Your task to perform on an android device: Add "razer nari" to the cart on bestbuy.com Image 0: 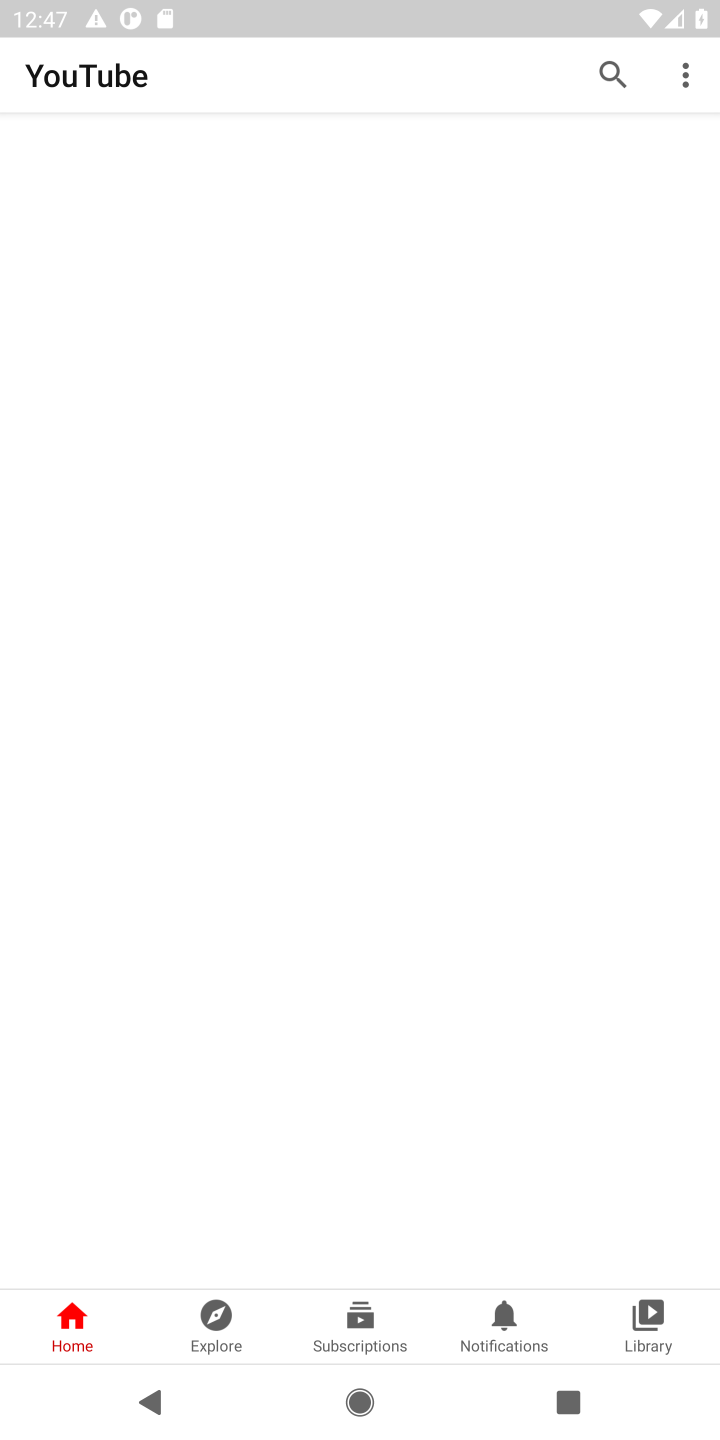
Step 0: click (477, 1141)
Your task to perform on an android device: Add "razer nari" to the cart on bestbuy.com Image 1: 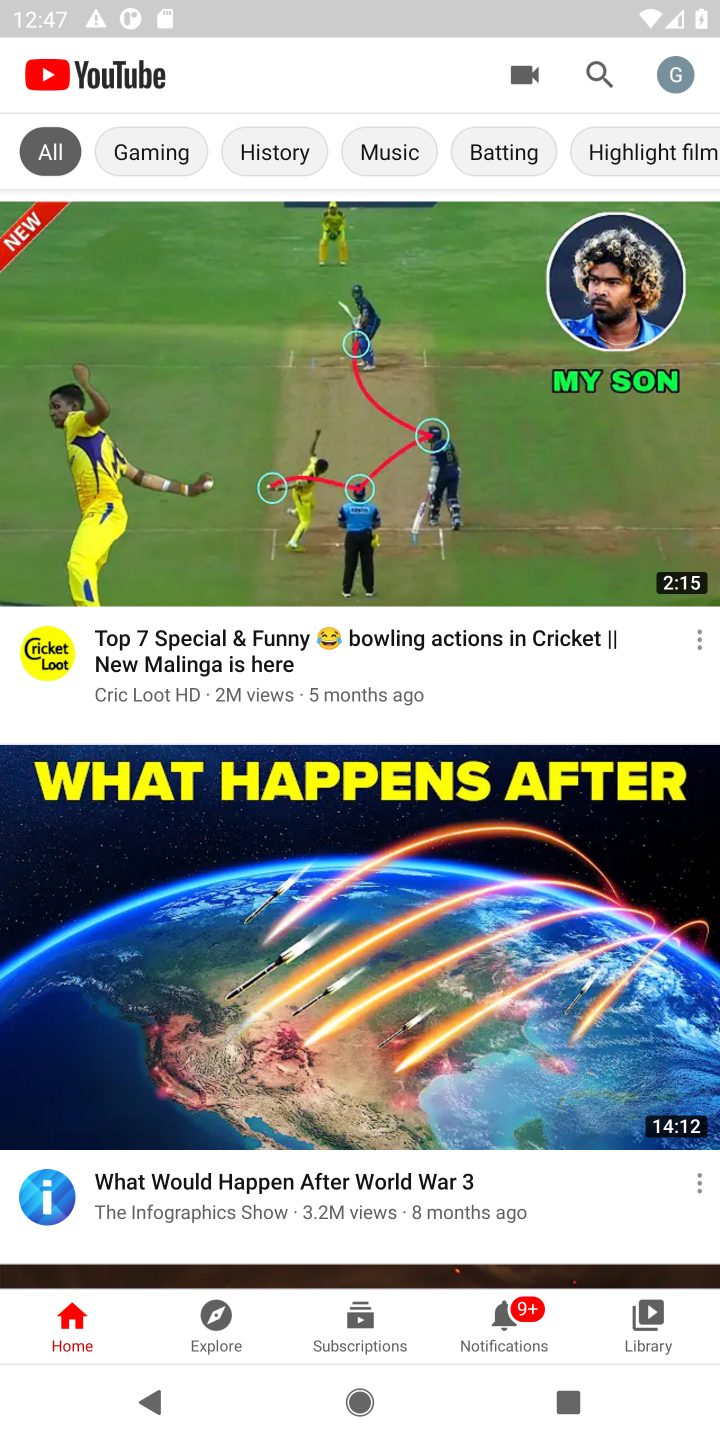
Step 1: press home button
Your task to perform on an android device: Add "razer nari" to the cart on bestbuy.com Image 2: 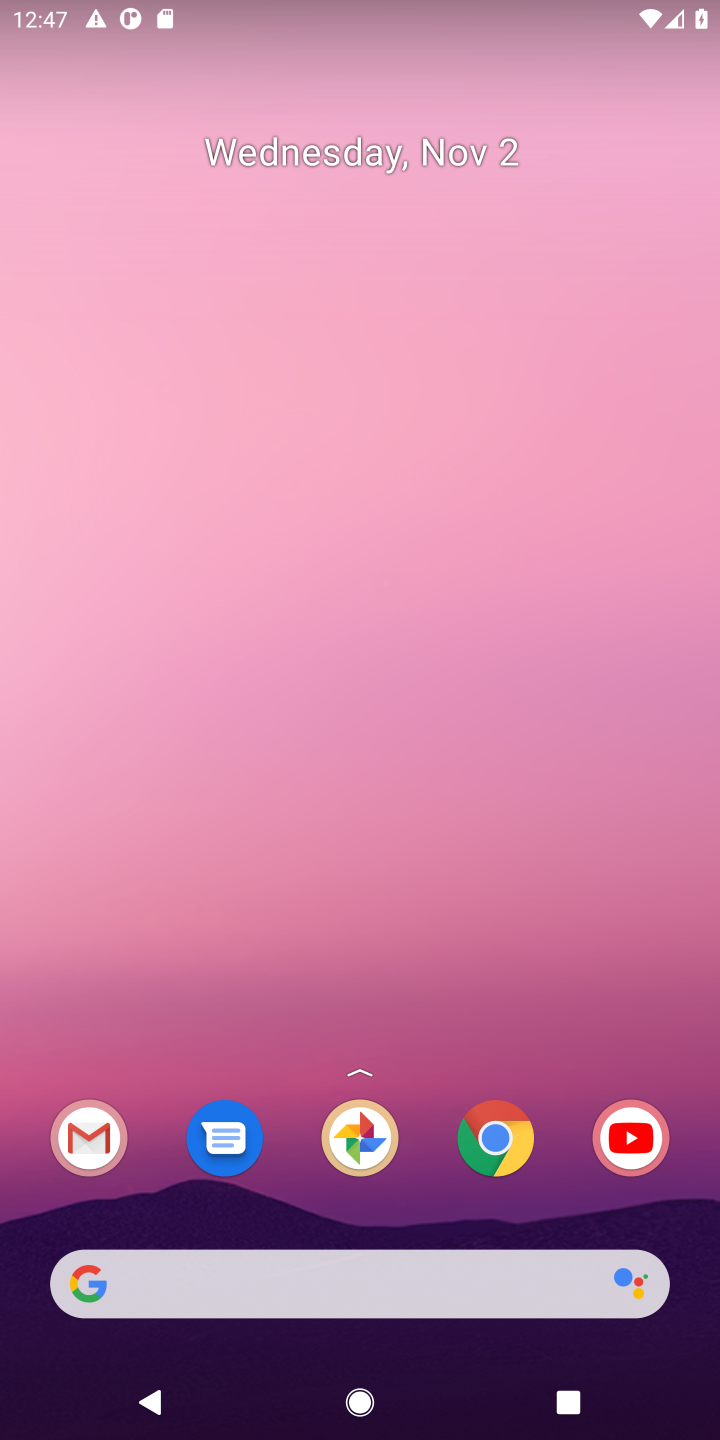
Step 2: click (486, 1131)
Your task to perform on an android device: Add "razer nari" to the cart on bestbuy.com Image 3: 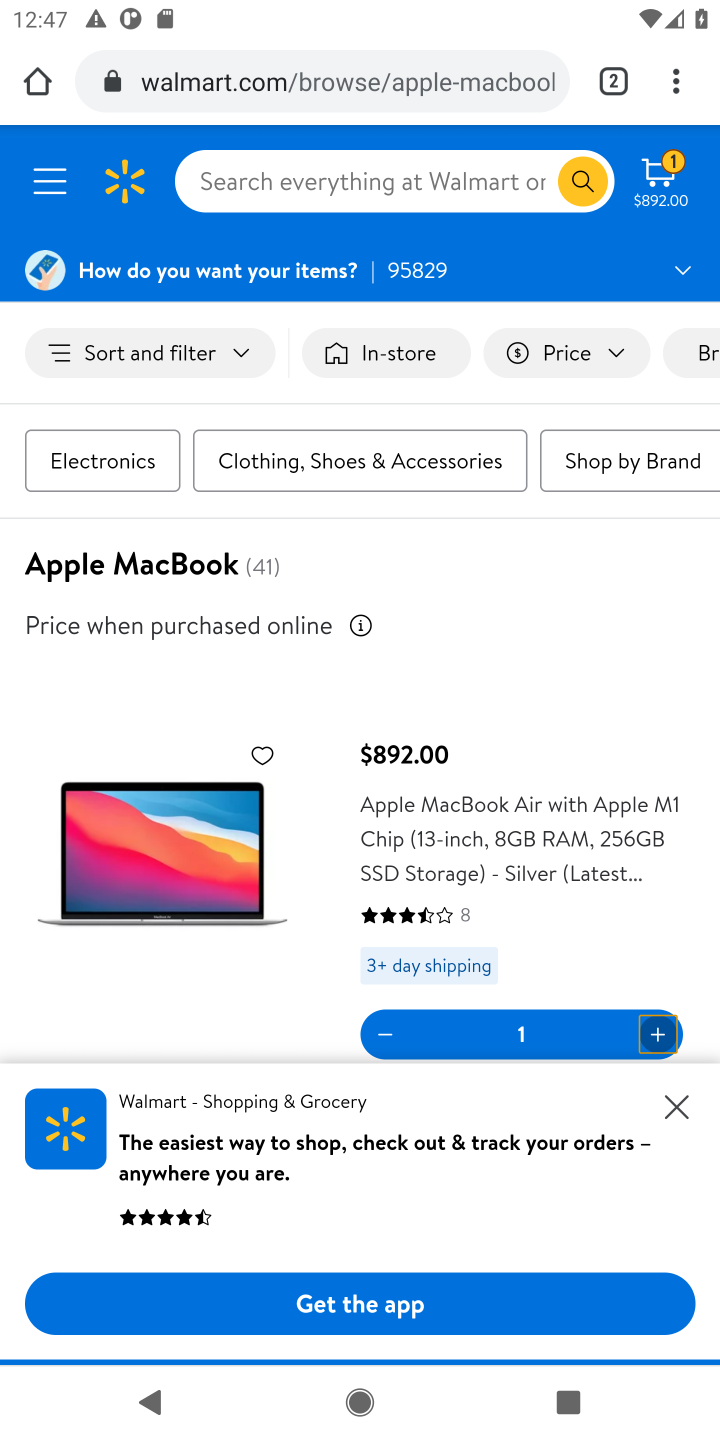
Step 3: click (610, 81)
Your task to perform on an android device: Add "razer nari" to the cart on bestbuy.com Image 4: 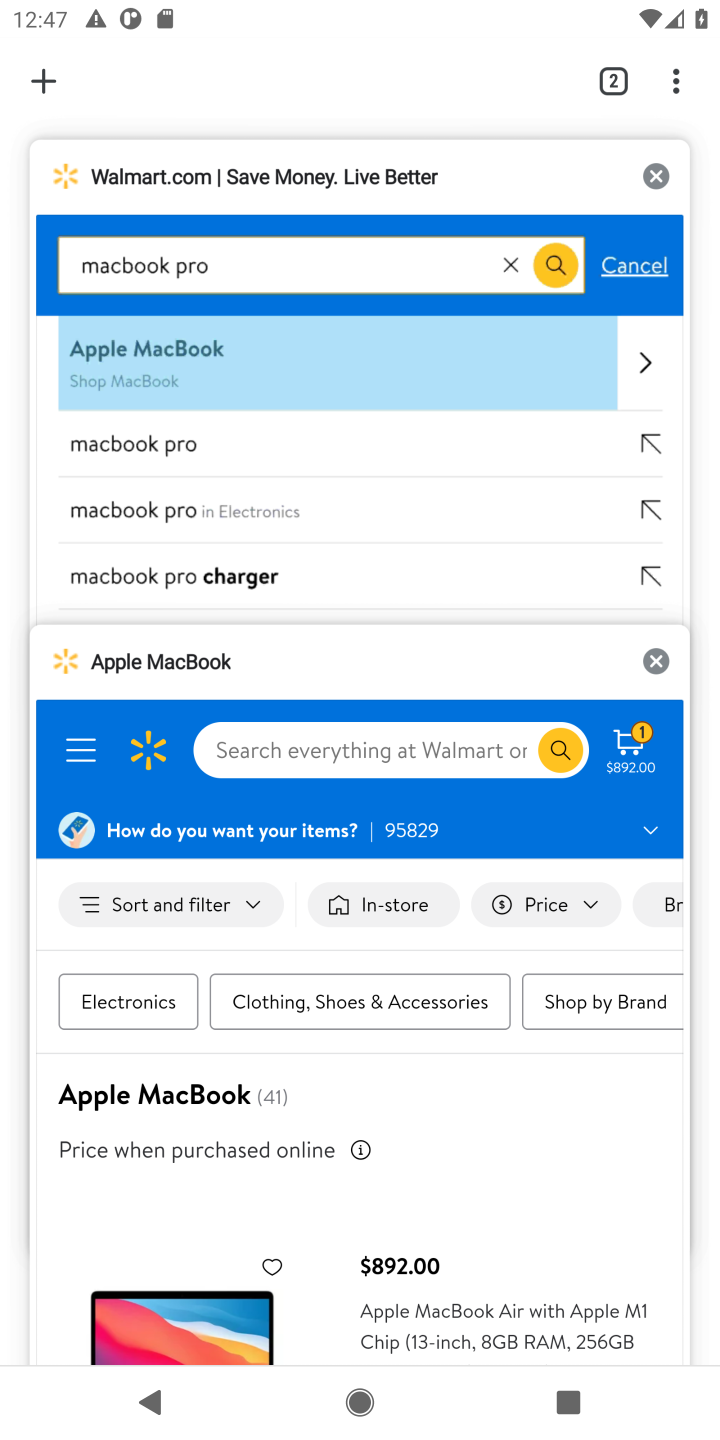
Step 4: click (659, 668)
Your task to perform on an android device: Add "razer nari" to the cart on bestbuy.com Image 5: 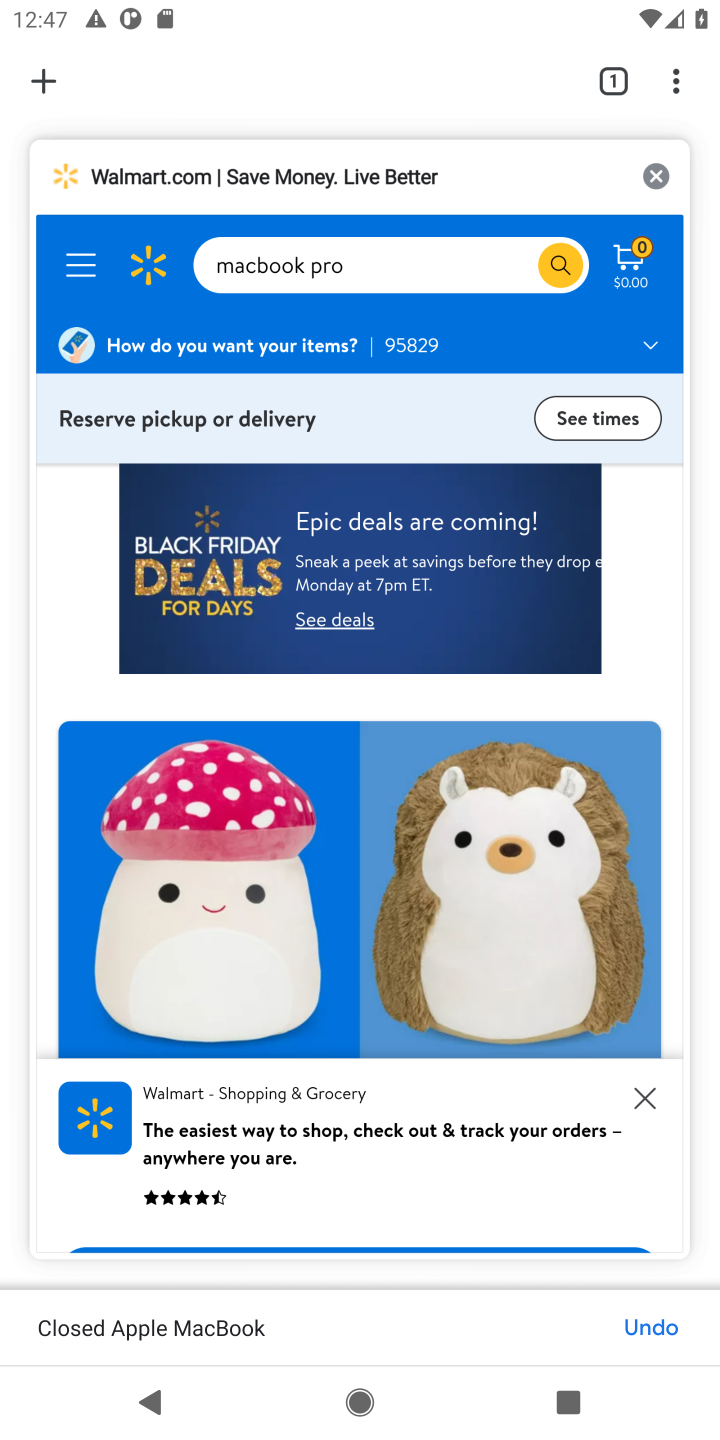
Step 5: click (40, 77)
Your task to perform on an android device: Add "razer nari" to the cart on bestbuy.com Image 6: 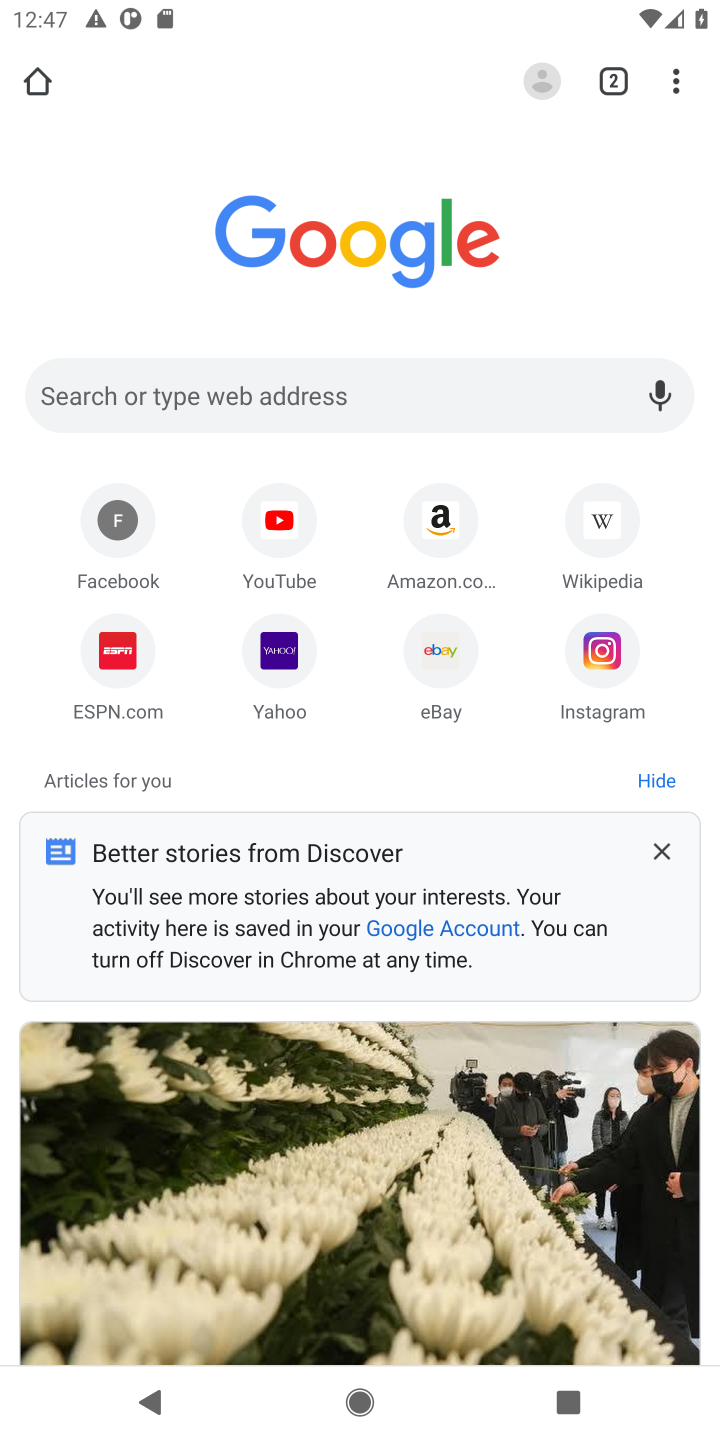
Step 6: click (322, 398)
Your task to perform on an android device: Add "razer nari" to the cart on bestbuy.com Image 7: 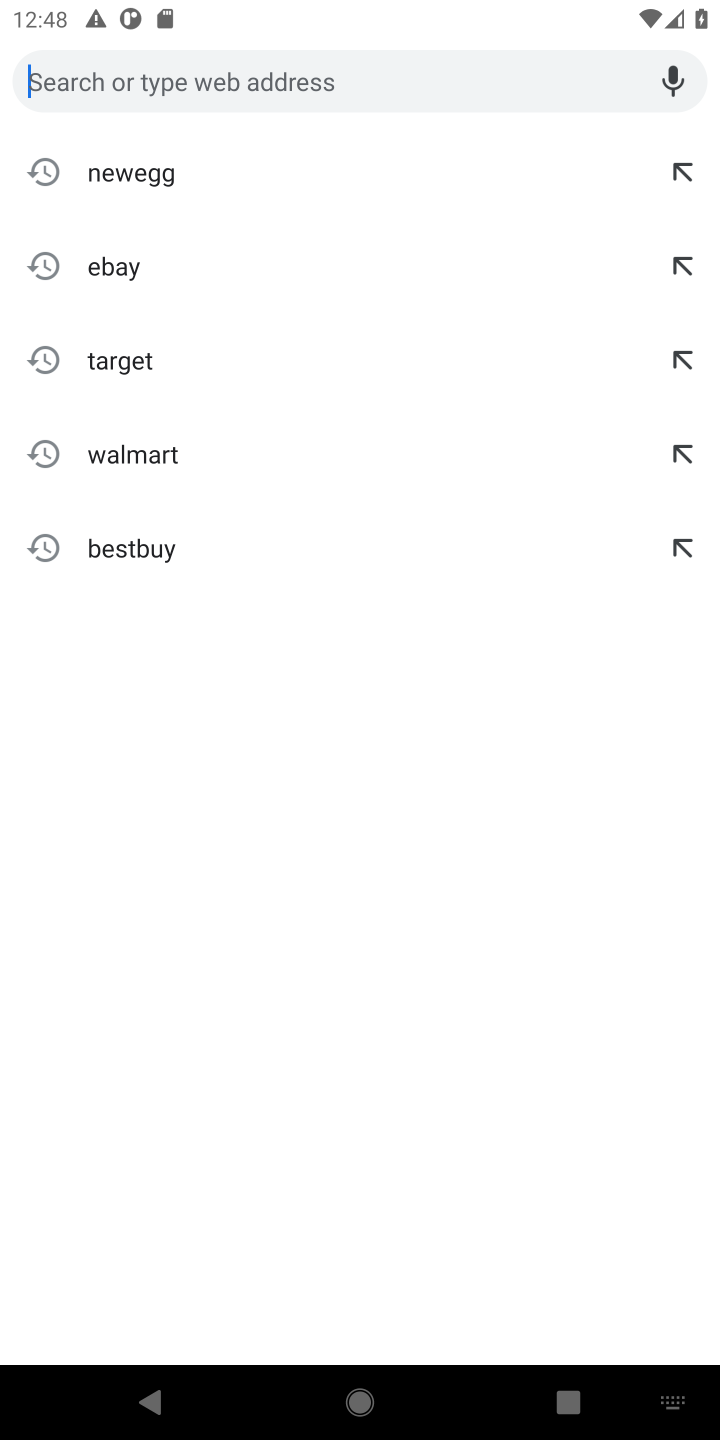
Step 7: type "bestbuy"
Your task to perform on an android device: Add "razer nari" to the cart on bestbuy.com Image 8: 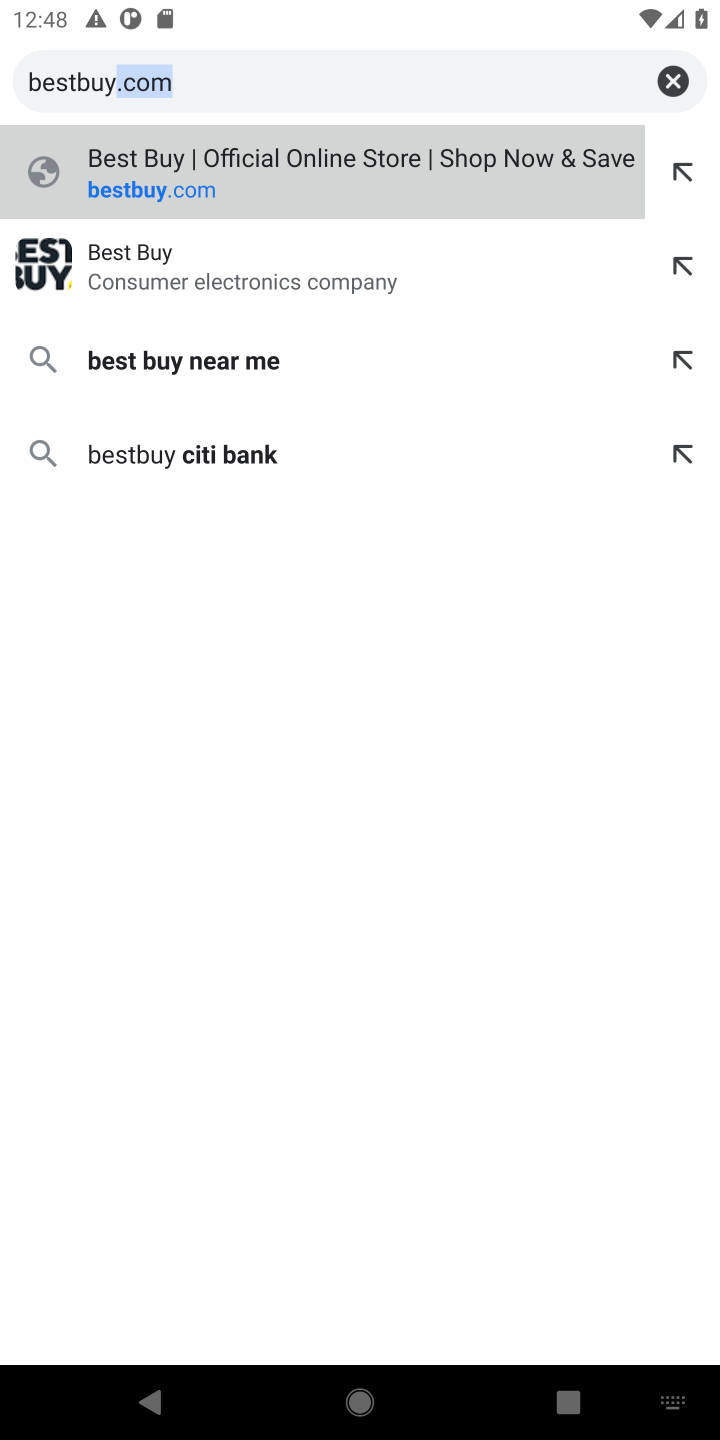
Step 8: click (404, 186)
Your task to perform on an android device: Add "razer nari" to the cart on bestbuy.com Image 9: 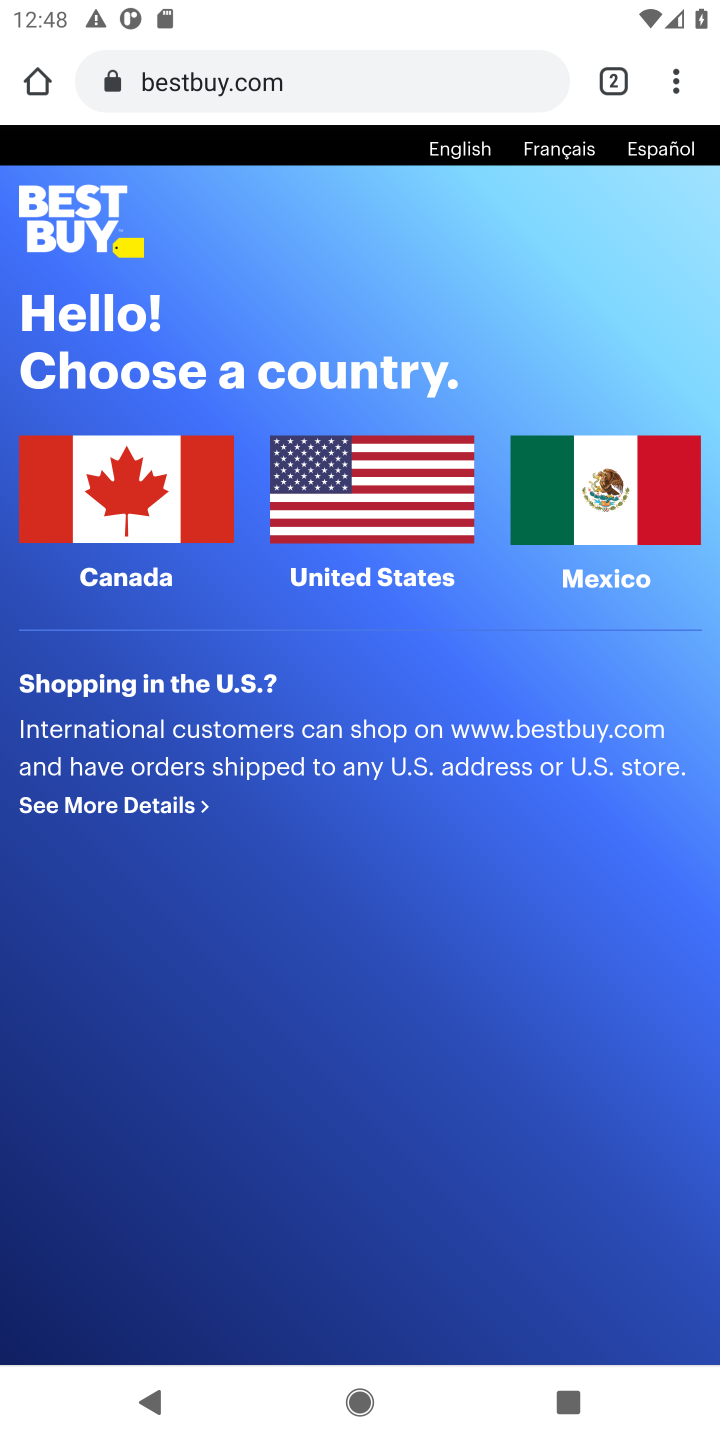
Step 9: click (393, 498)
Your task to perform on an android device: Add "razer nari" to the cart on bestbuy.com Image 10: 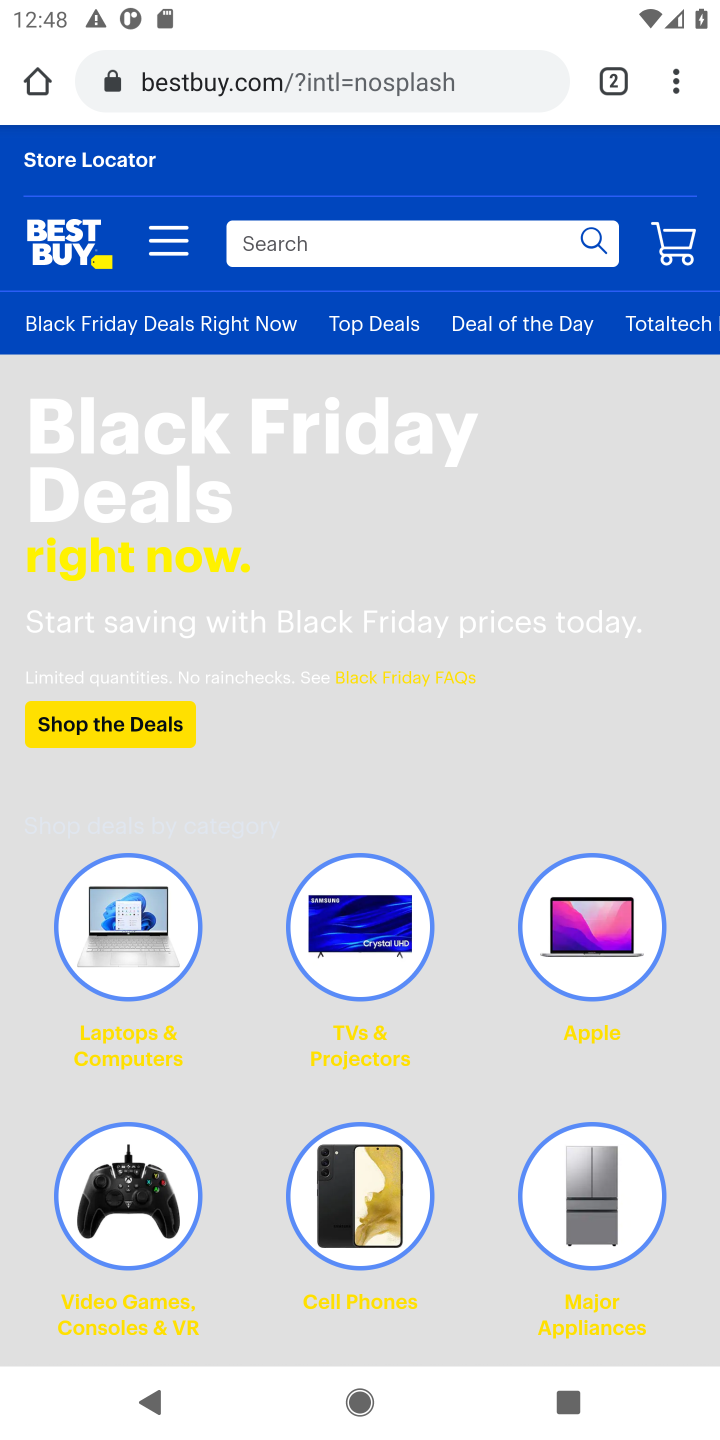
Step 10: click (440, 258)
Your task to perform on an android device: Add "razer nari" to the cart on bestbuy.com Image 11: 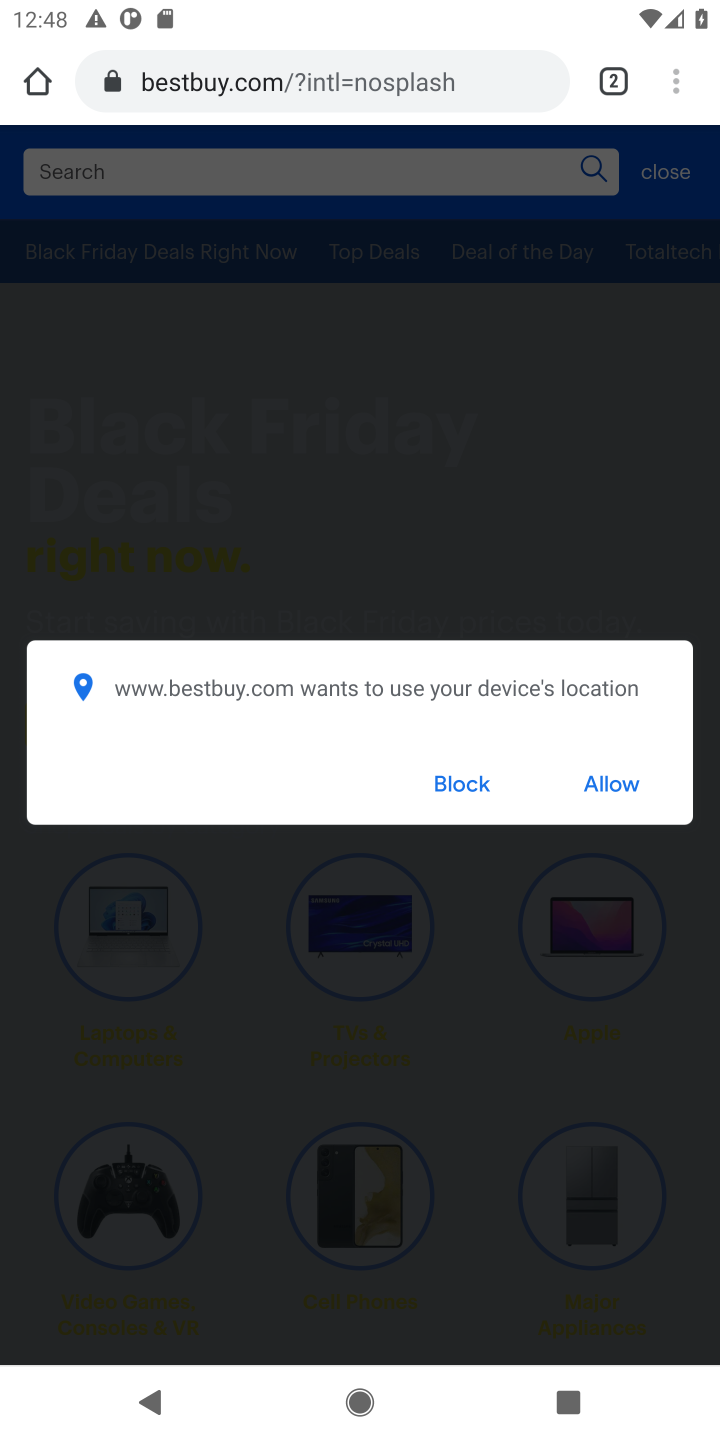
Step 11: type "razer nari"
Your task to perform on an android device: Add "razer nari" to the cart on bestbuy.com Image 12: 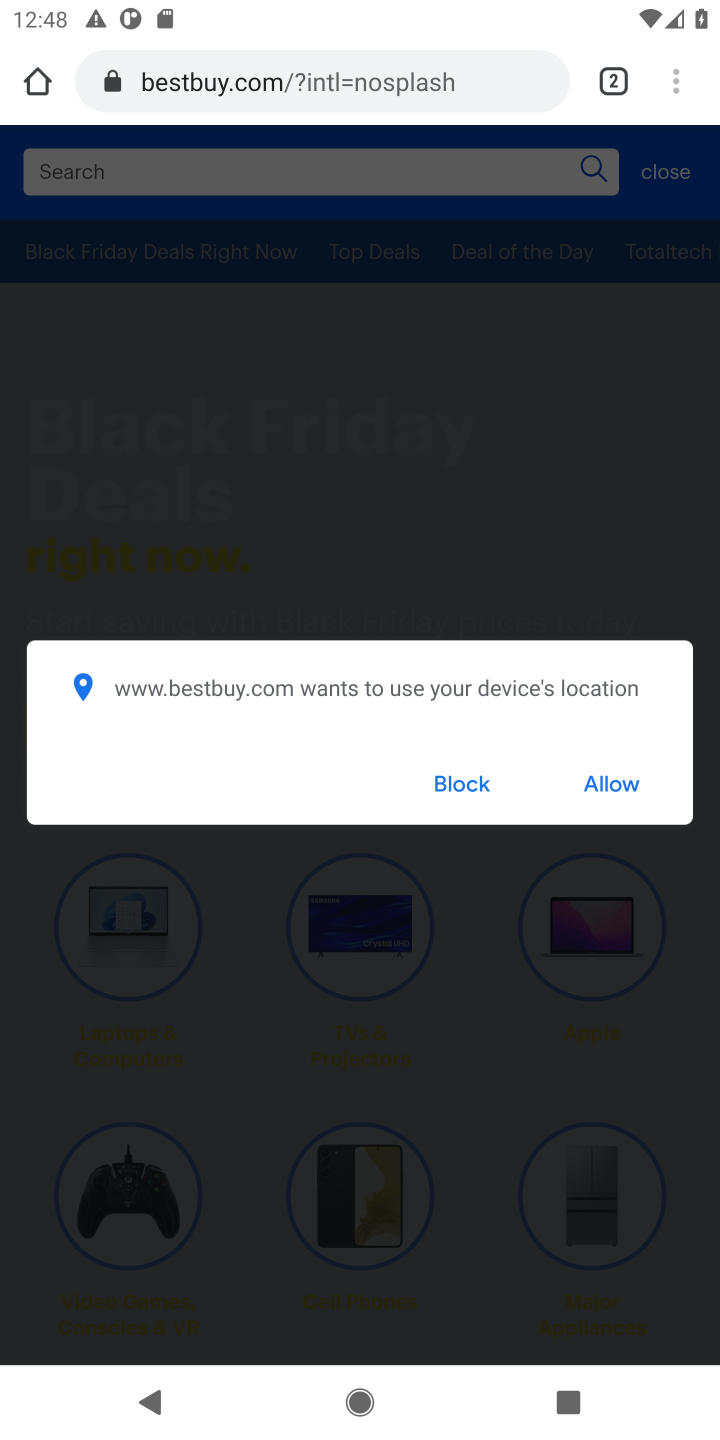
Step 12: click (459, 783)
Your task to perform on an android device: Add "razer nari" to the cart on bestbuy.com Image 13: 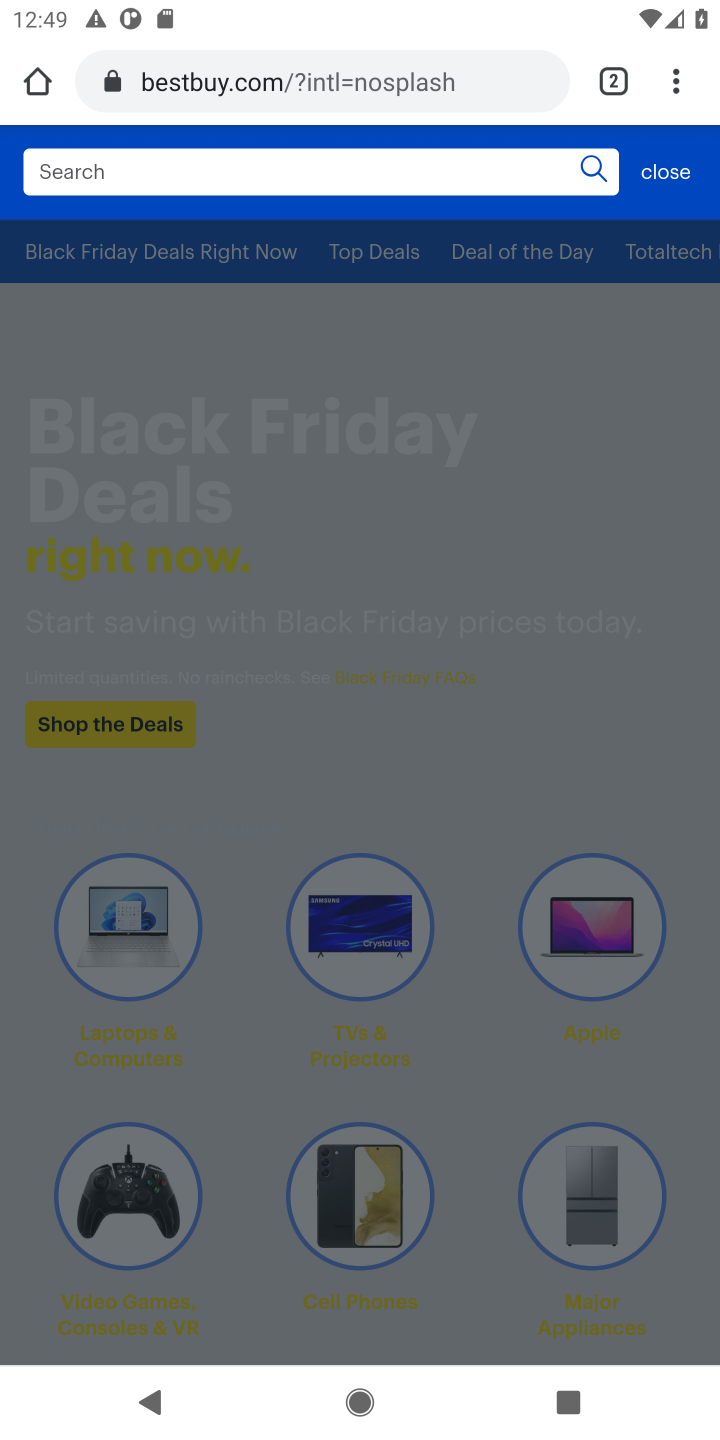
Step 13: click (295, 170)
Your task to perform on an android device: Add "razer nari" to the cart on bestbuy.com Image 14: 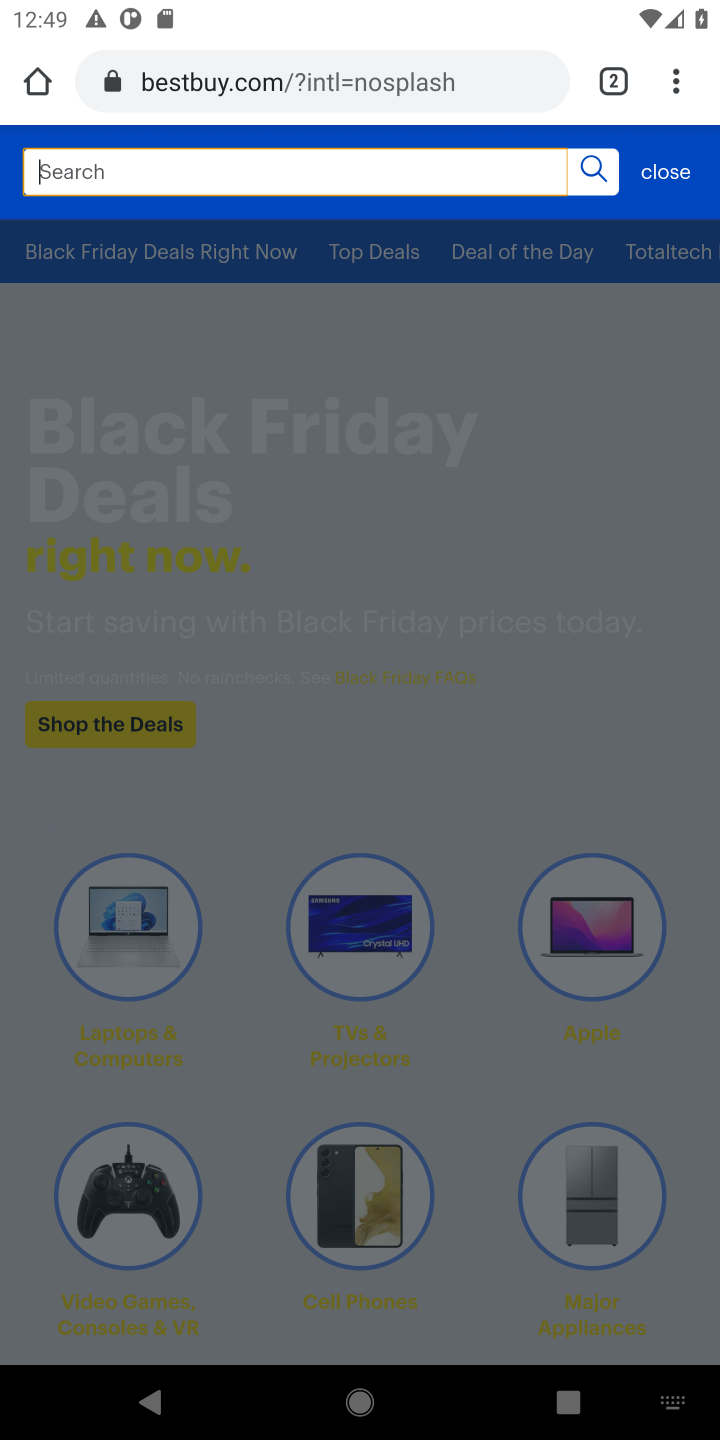
Step 14: type "razer nari"
Your task to perform on an android device: Add "razer nari" to the cart on bestbuy.com Image 15: 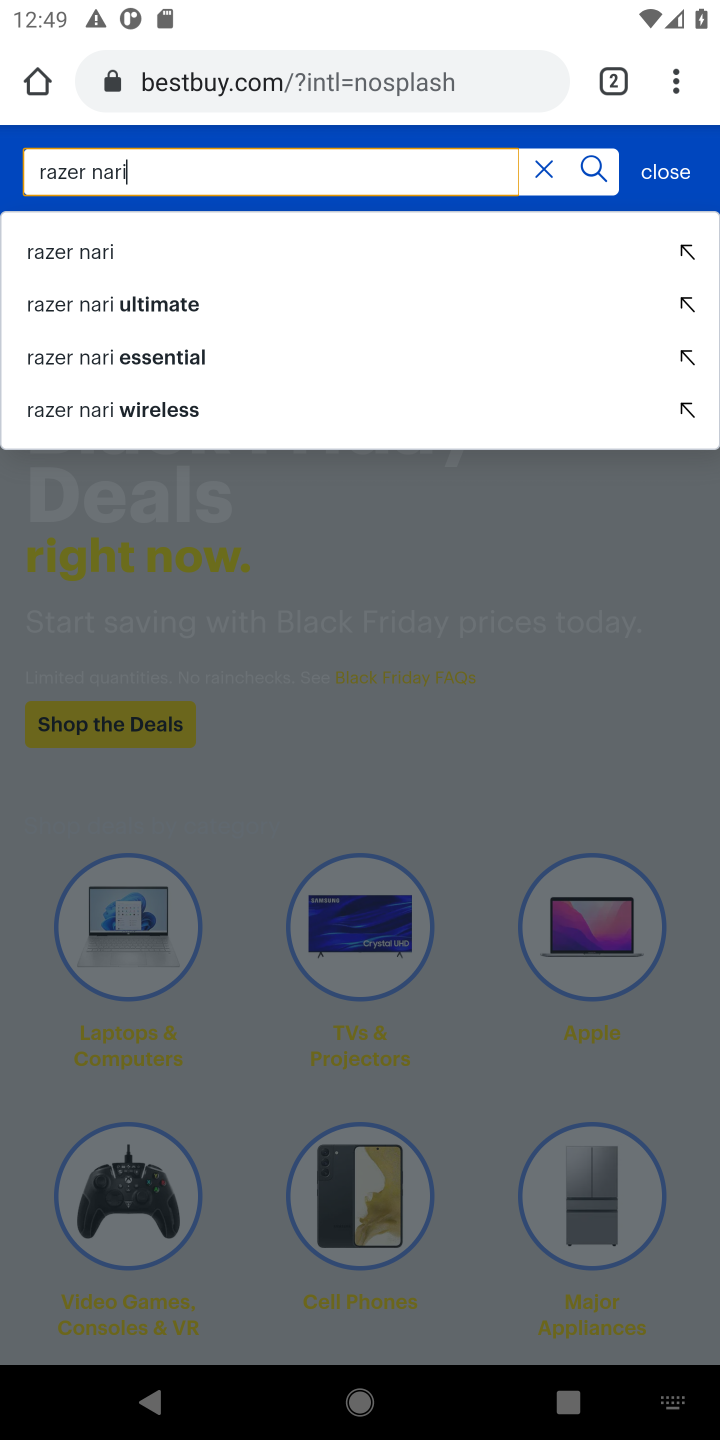
Step 15: click (75, 297)
Your task to perform on an android device: Add "razer nari" to the cart on bestbuy.com Image 16: 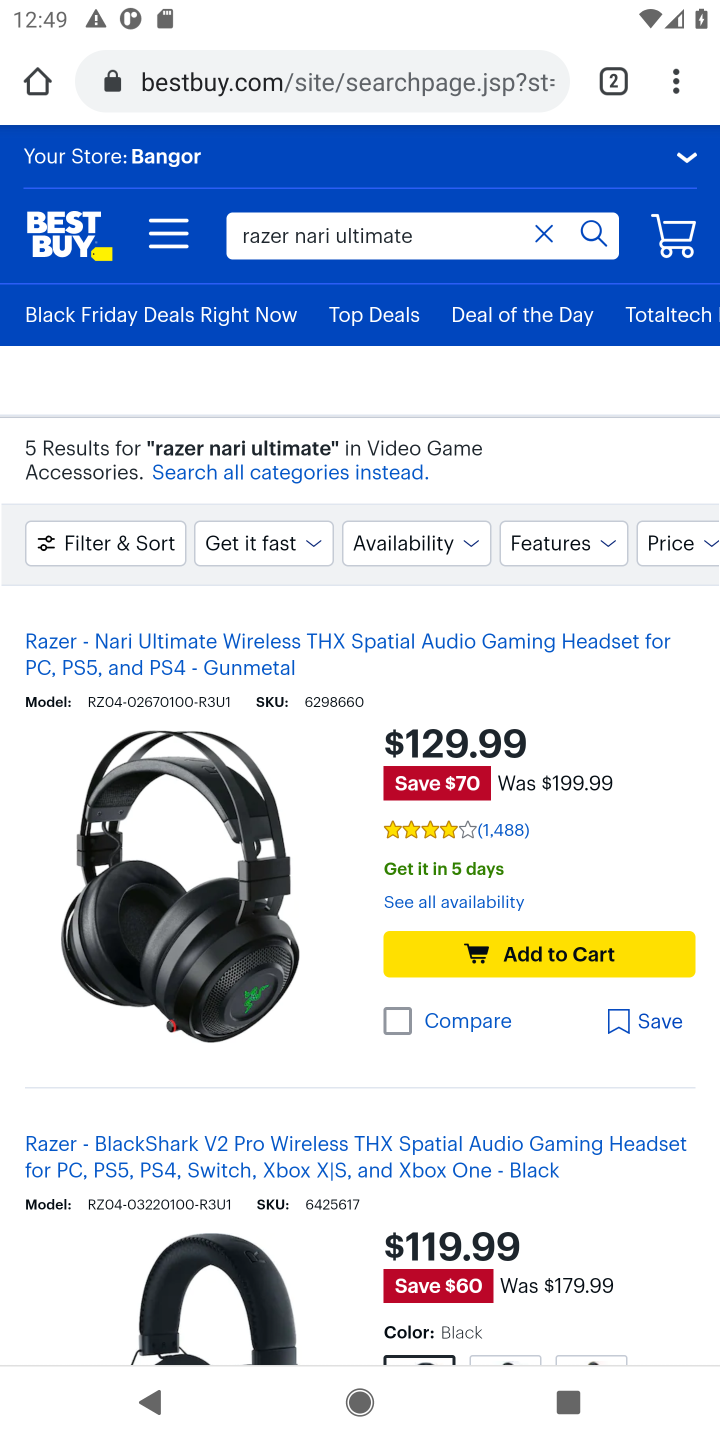
Step 16: click (550, 881)
Your task to perform on an android device: Add "razer nari" to the cart on bestbuy.com Image 17: 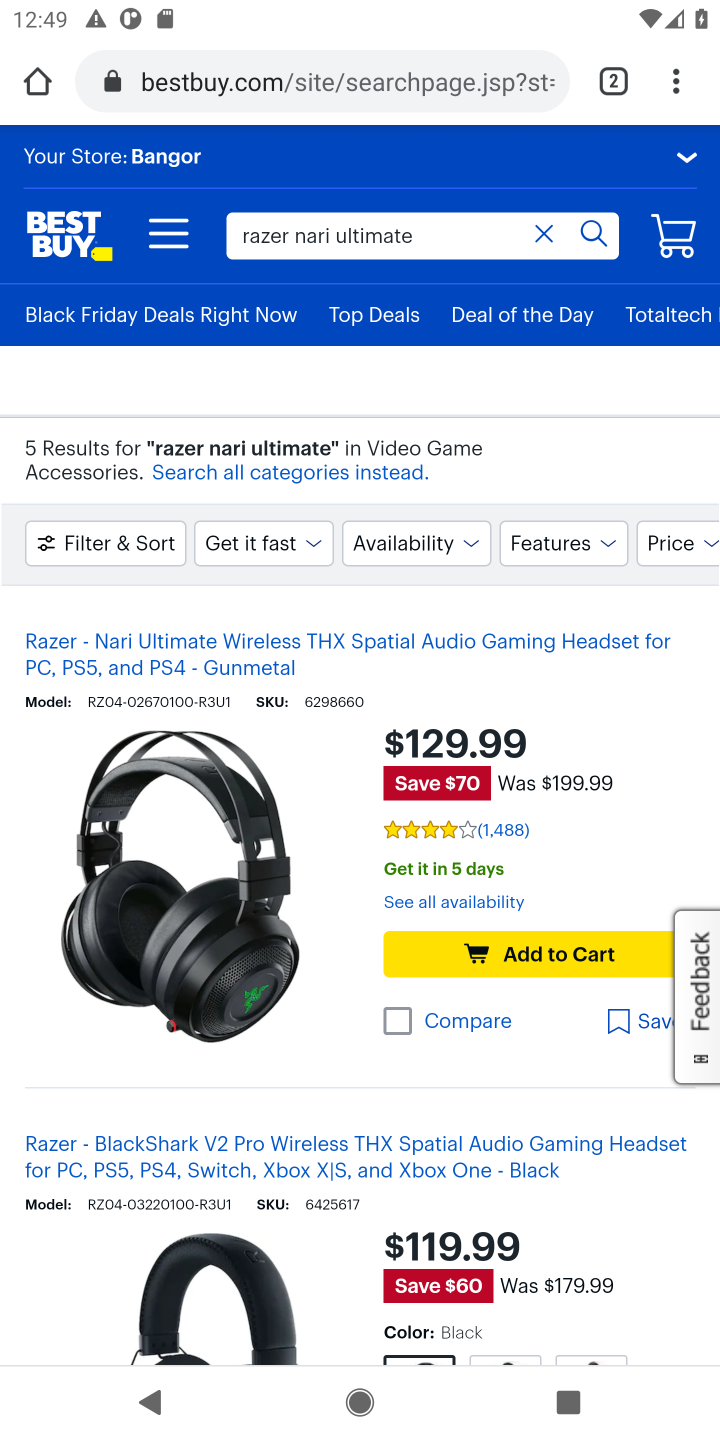
Step 17: click (491, 958)
Your task to perform on an android device: Add "razer nari" to the cart on bestbuy.com Image 18: 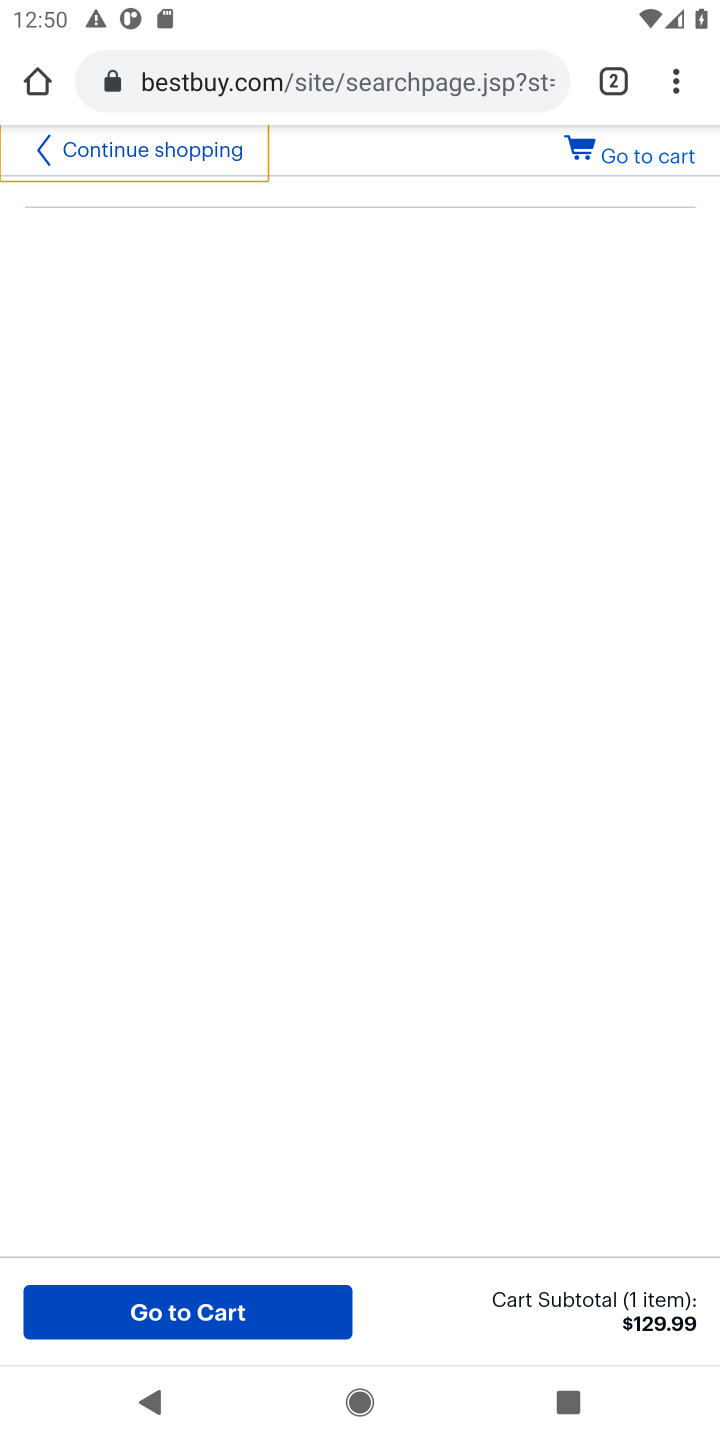
Step 18: task complete